Your task to perform on an android device: Add "dell xps" to the cart on ebay.com, then select checkout. Image 0: 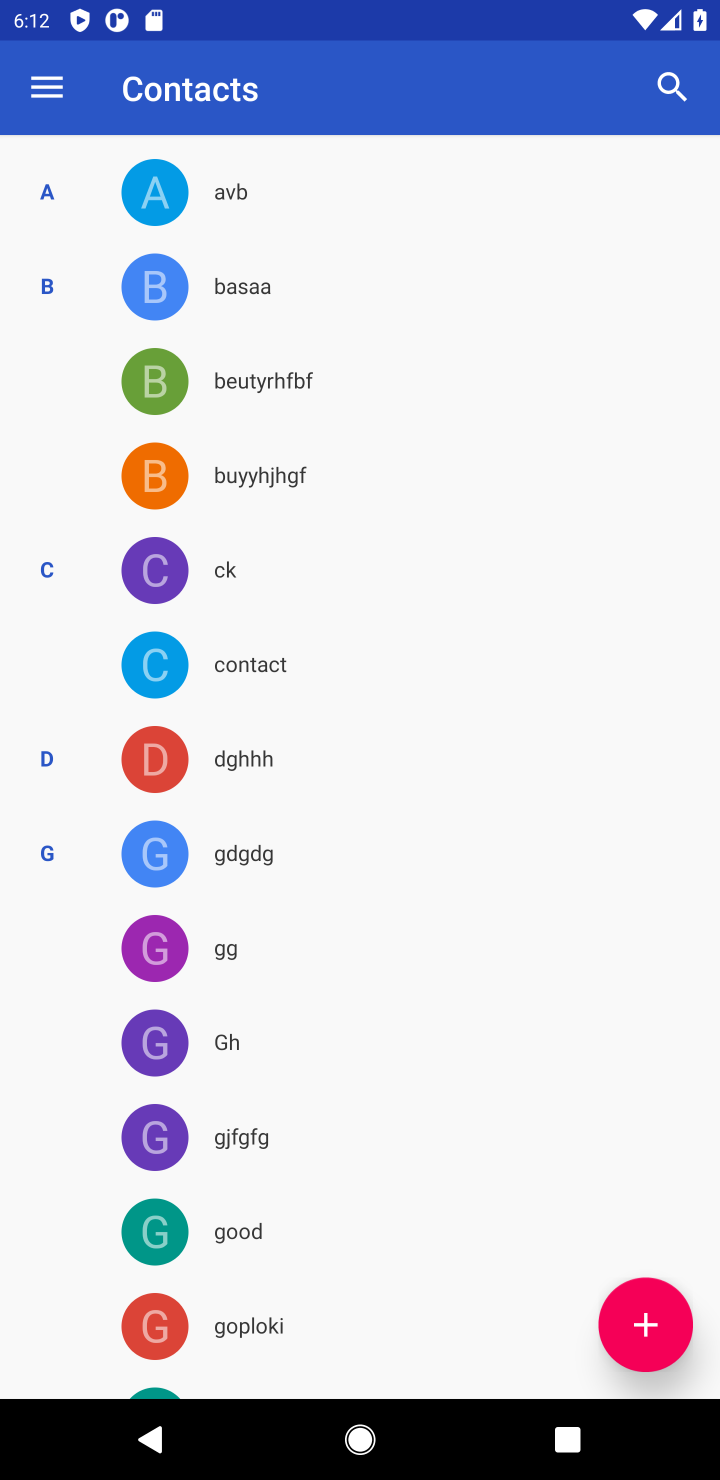
Step 0: press home button
Your task to perform on an android device: Add "dell xps" to the cart on ebay.com, then select checkout. Image 1: 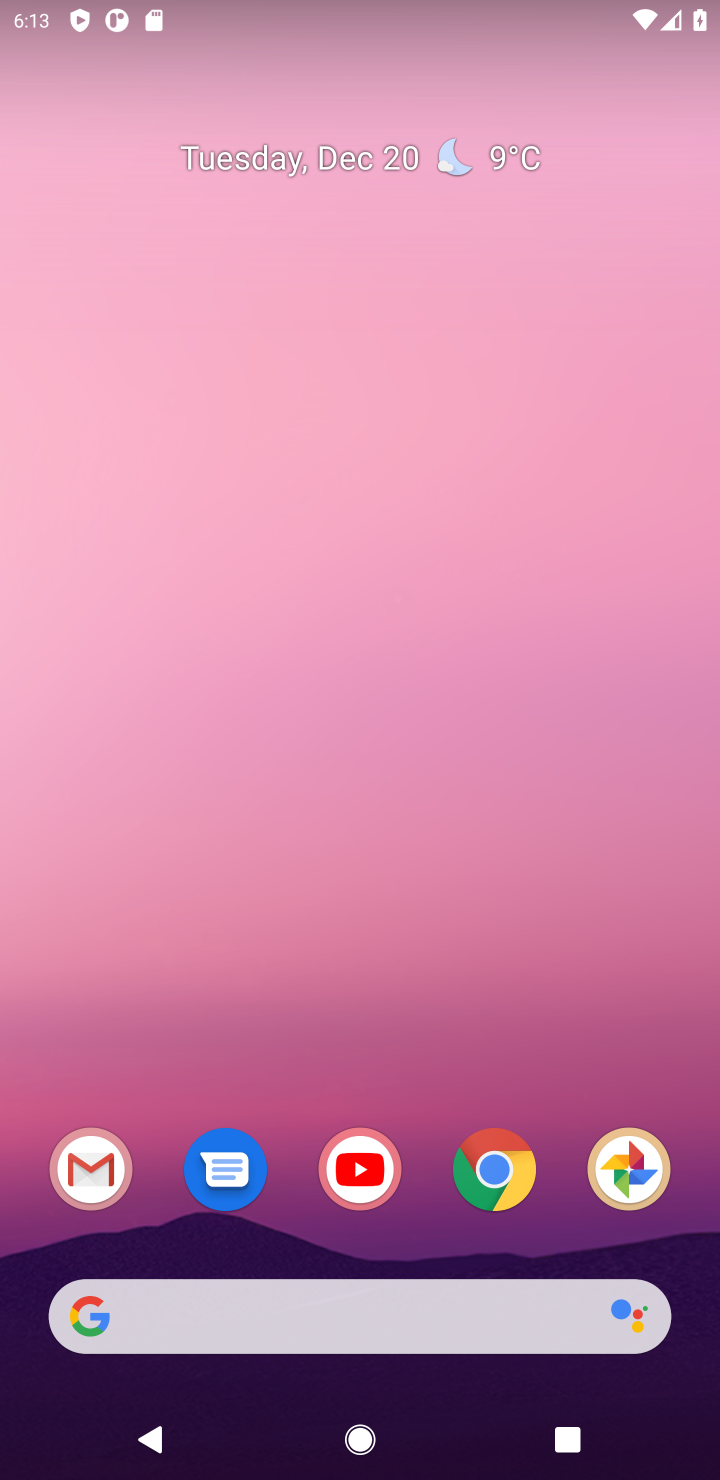
Step 1: click (472, 1194)
Your task to perform on an android device: Add "dell xps" to the cart on ebay.com, then select checkout. Image 2: 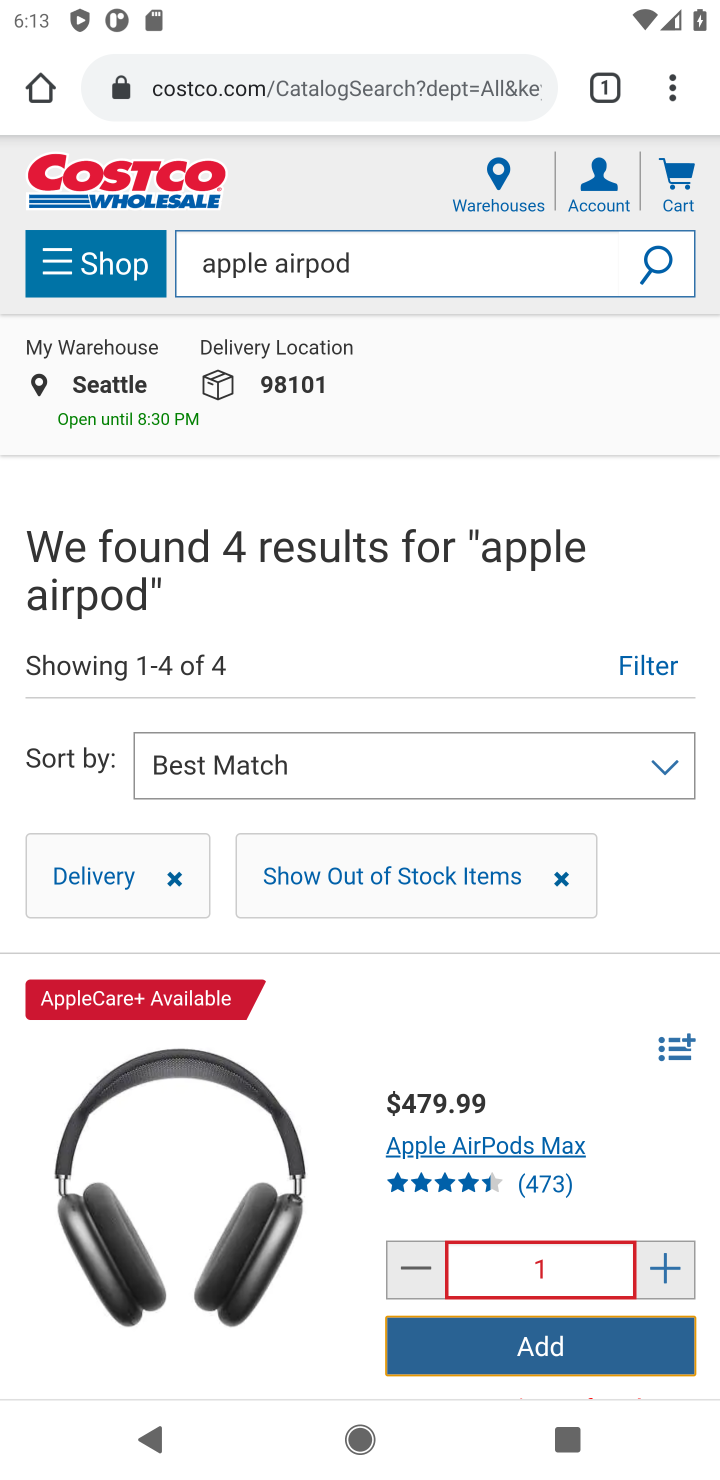
Step 2: click (395, 67)
Your task to perform on an android device: Add "dell xps" to the cart on ebay.com, then select checkout. Image 3: 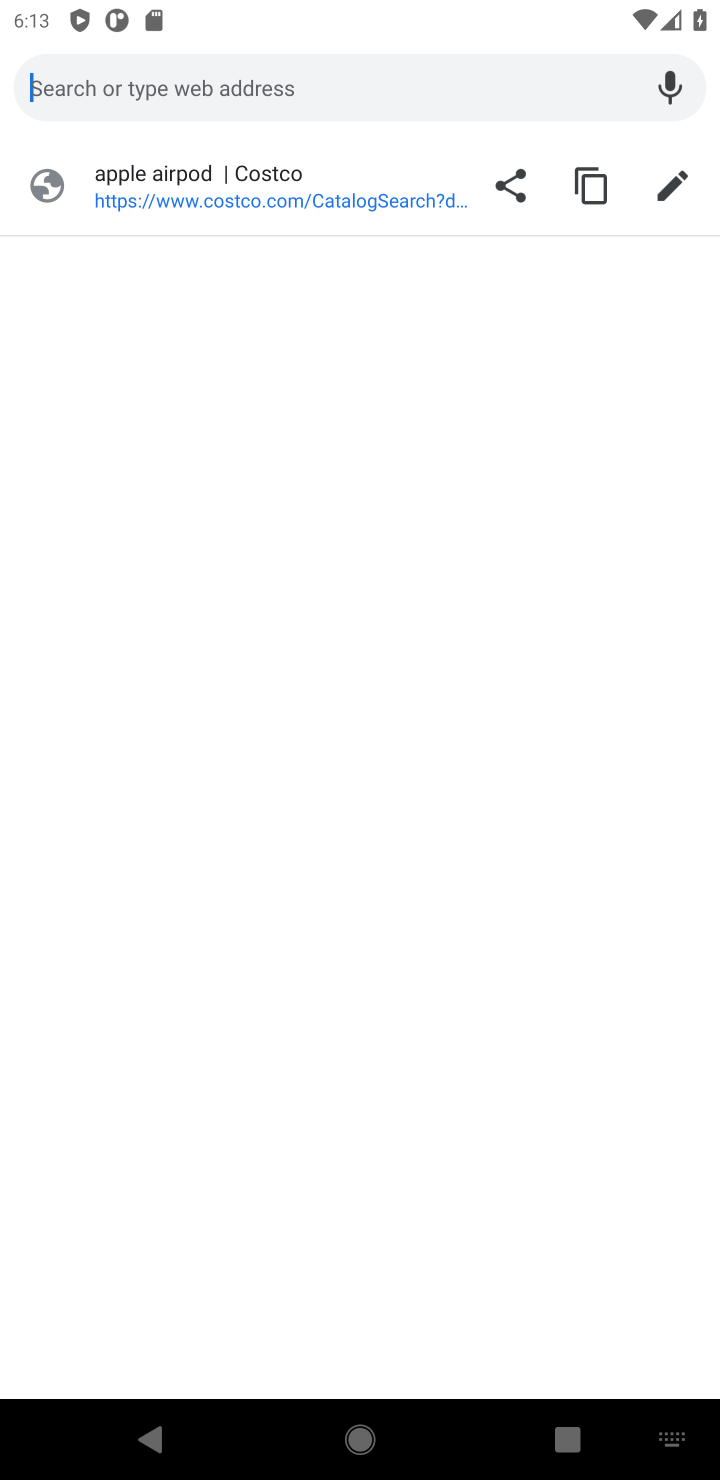
Step 3: type "ebay.com"
Your task to perform on an android device: Add "dell xps" to the cart on ebay.com, then select checkout. Image 4: 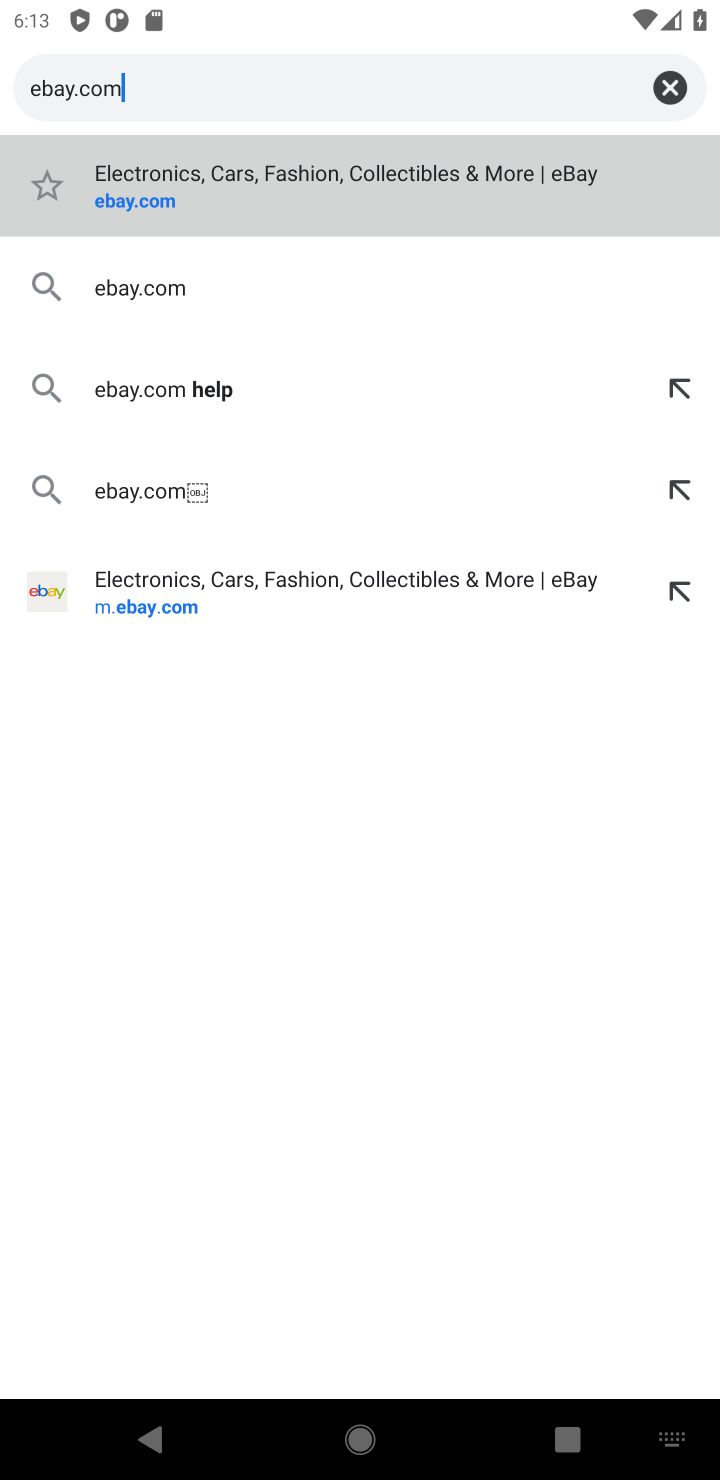
Step 4: click (470, 164)
Your task to perform on an android device: Add "dell xps" to the cart on ebay.com, then select checkout. Image 5: 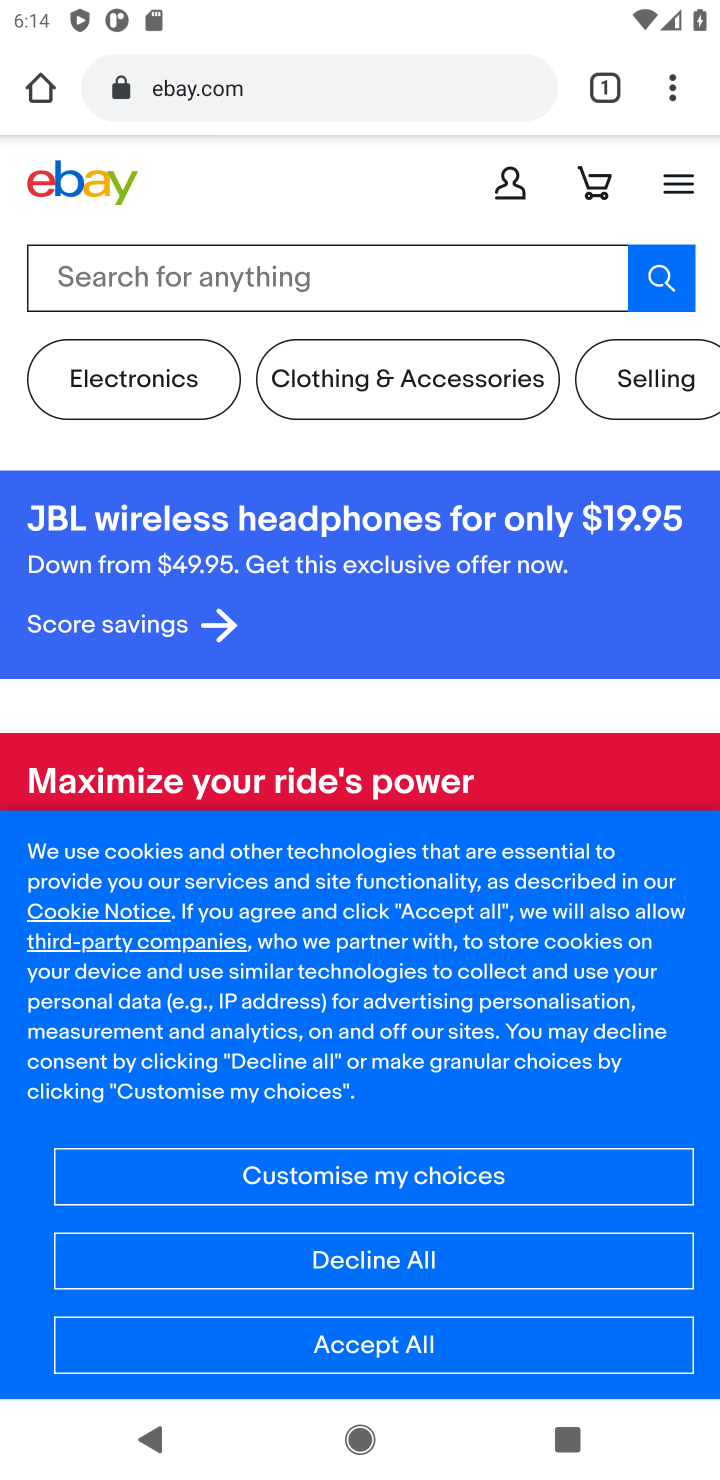
Step 5: click (512, 255)
Your task to perform on an android device: Add "dell xps" to the cart on ebay.com, then select checkout. Image 6: 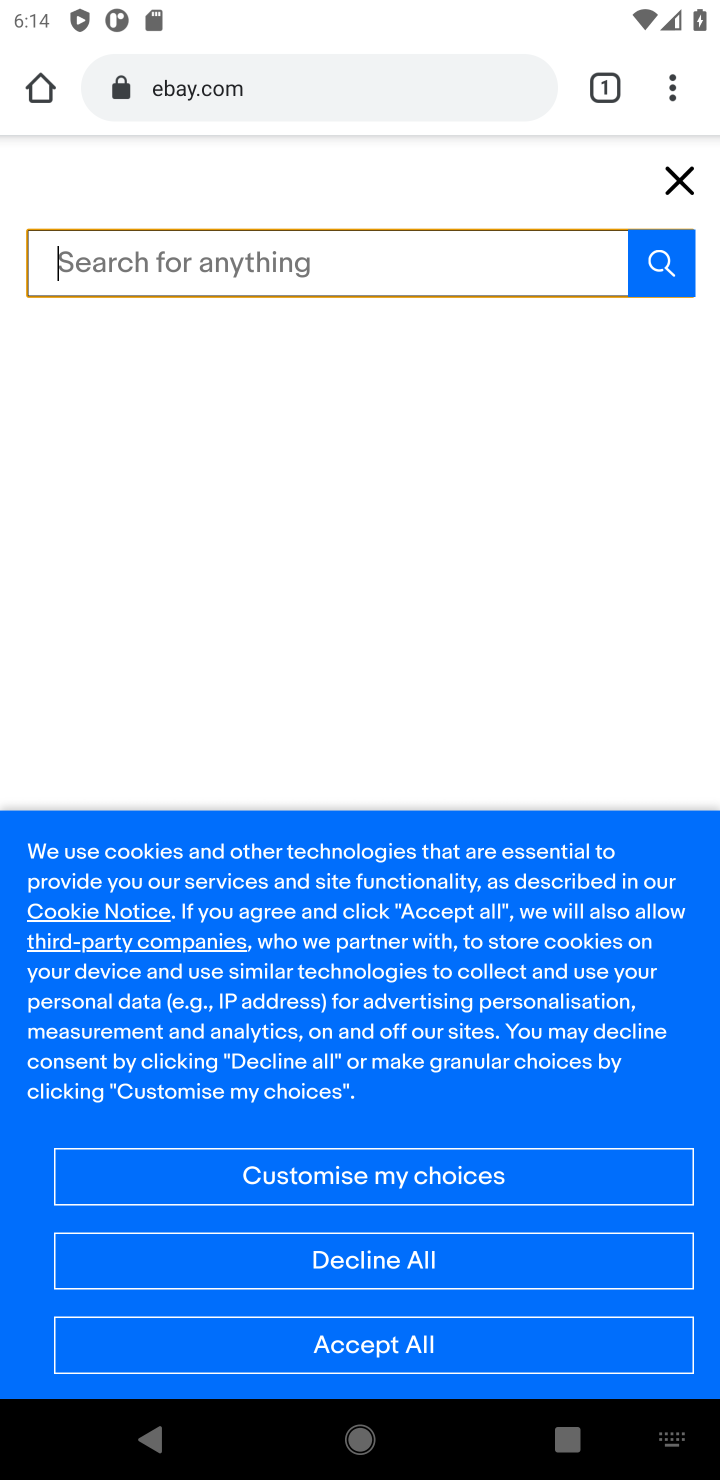
Step 6: type "dell xps"
Your task to perform on an android device: Add "dell xps" to the cart on ebay.com, then select checkout. Image 7: 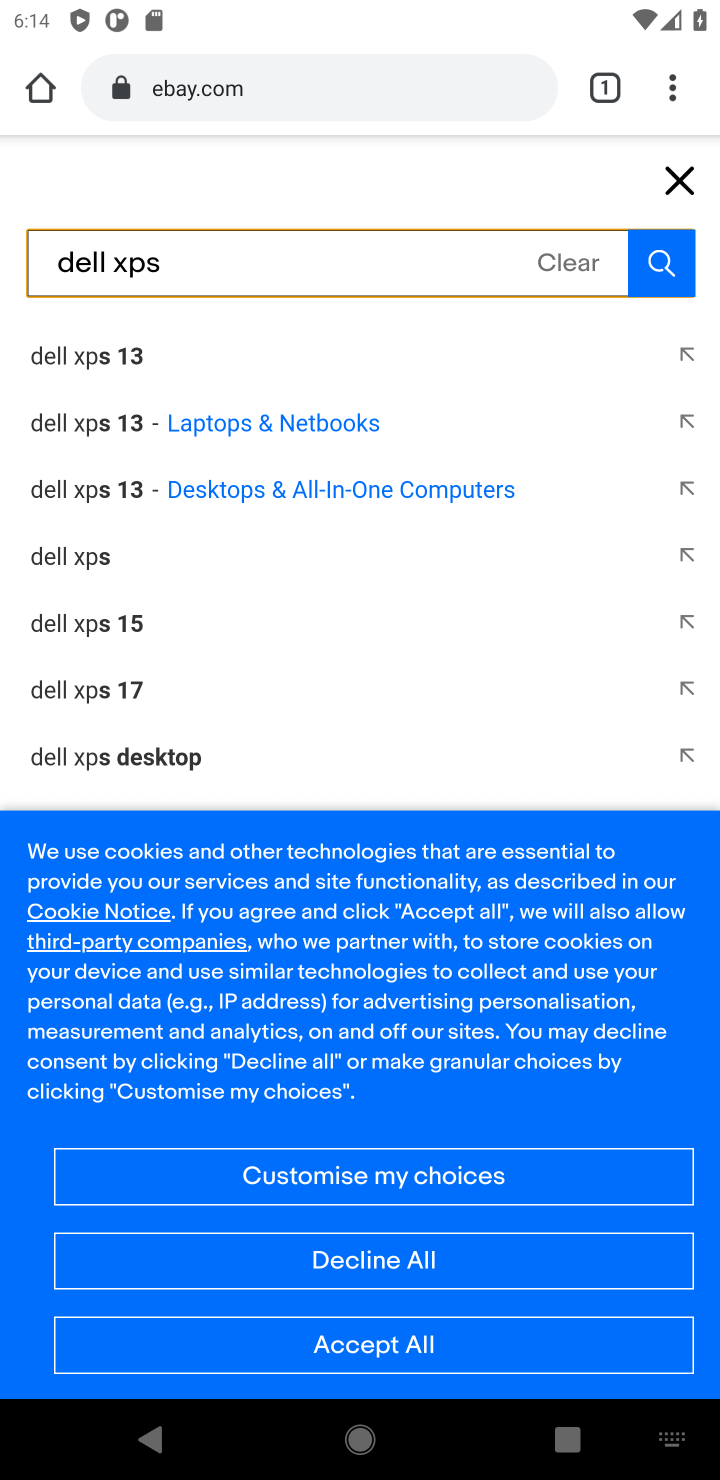
Step 7: click (651, 266)
Your task to perform on an android device: Add "dell xps" to the cart on ebay.com, then select checkout. Image 8: 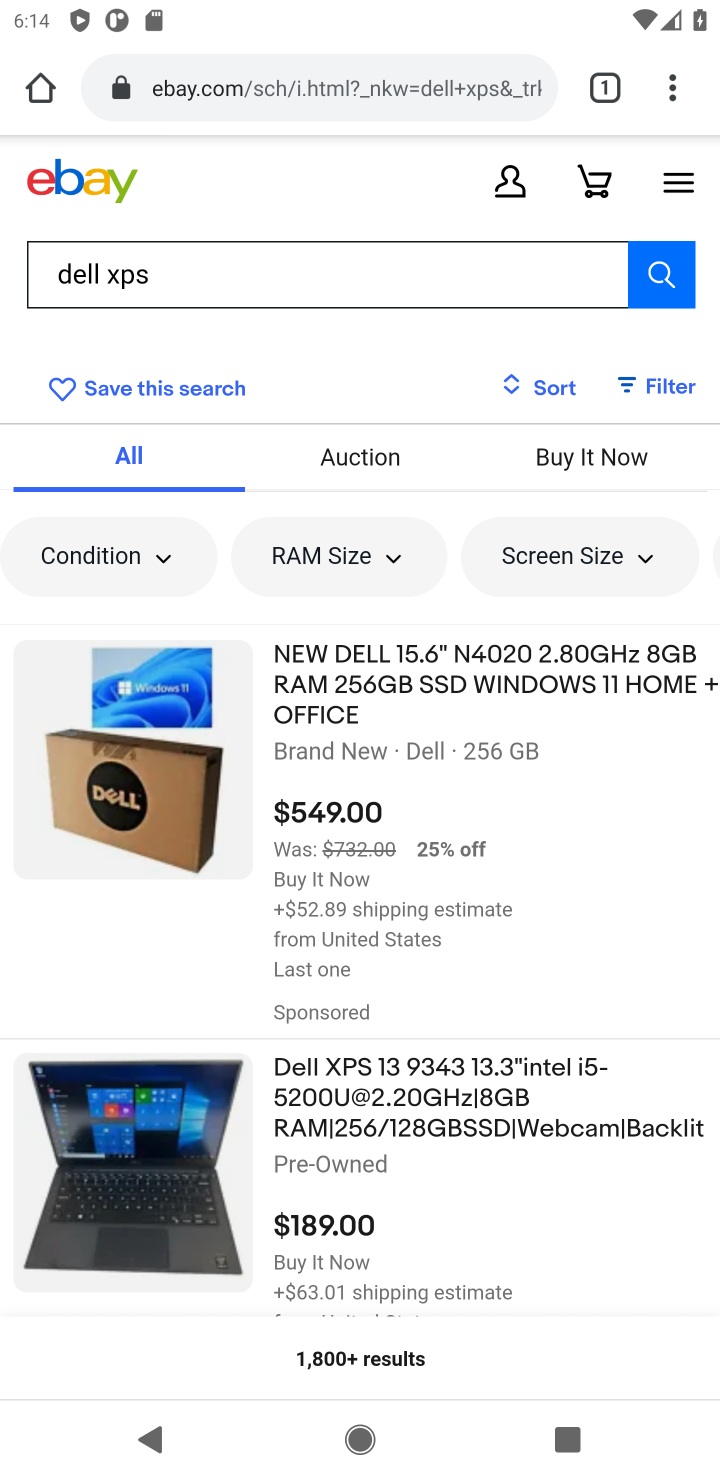
Step 8: click (399, 1133)
Your task to perform on an android device: Add "dell xps" to the cart on ebay.com, then select checkout. Image 9: 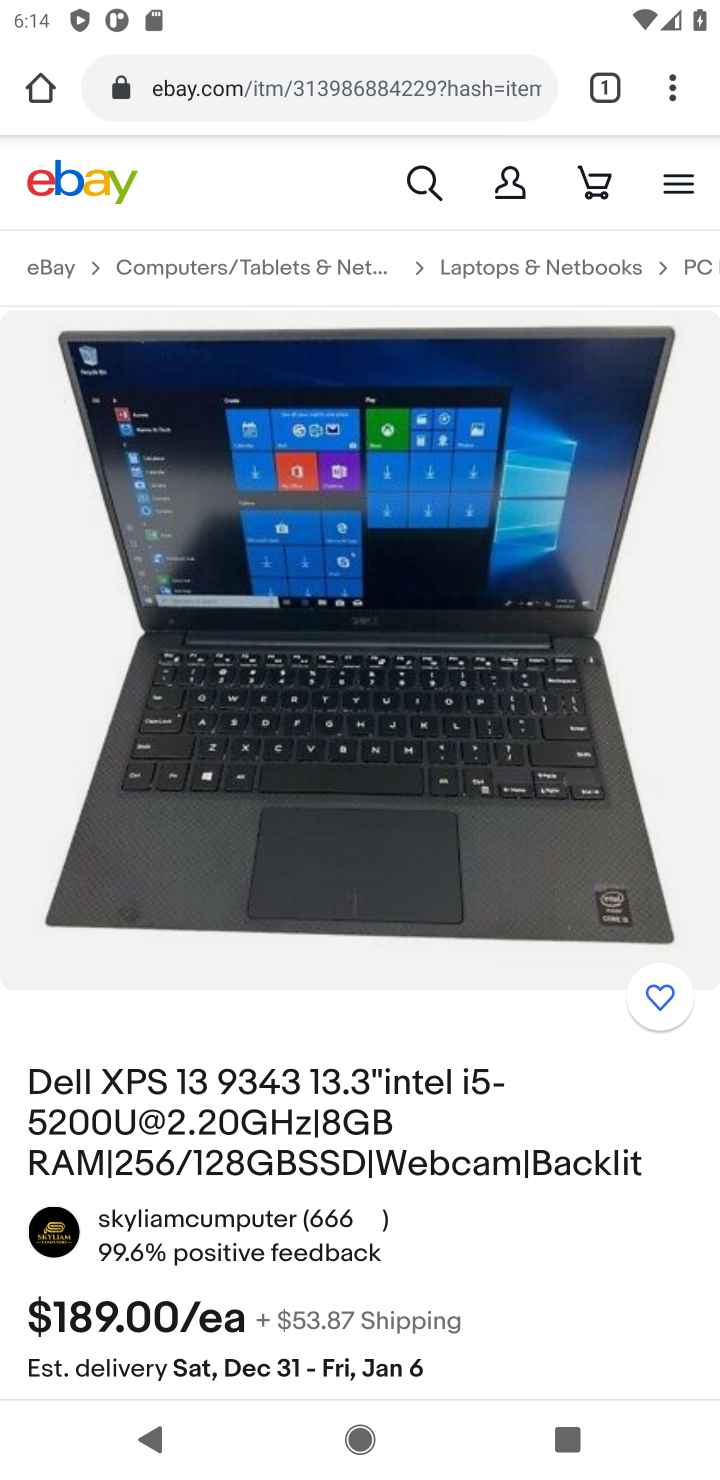
Step 9: drag from (399, 1133) to (243, 350)
Your task to perform on an android device: Add "dell xps" to the cart on ebay.com, then select checkout. Image 10: 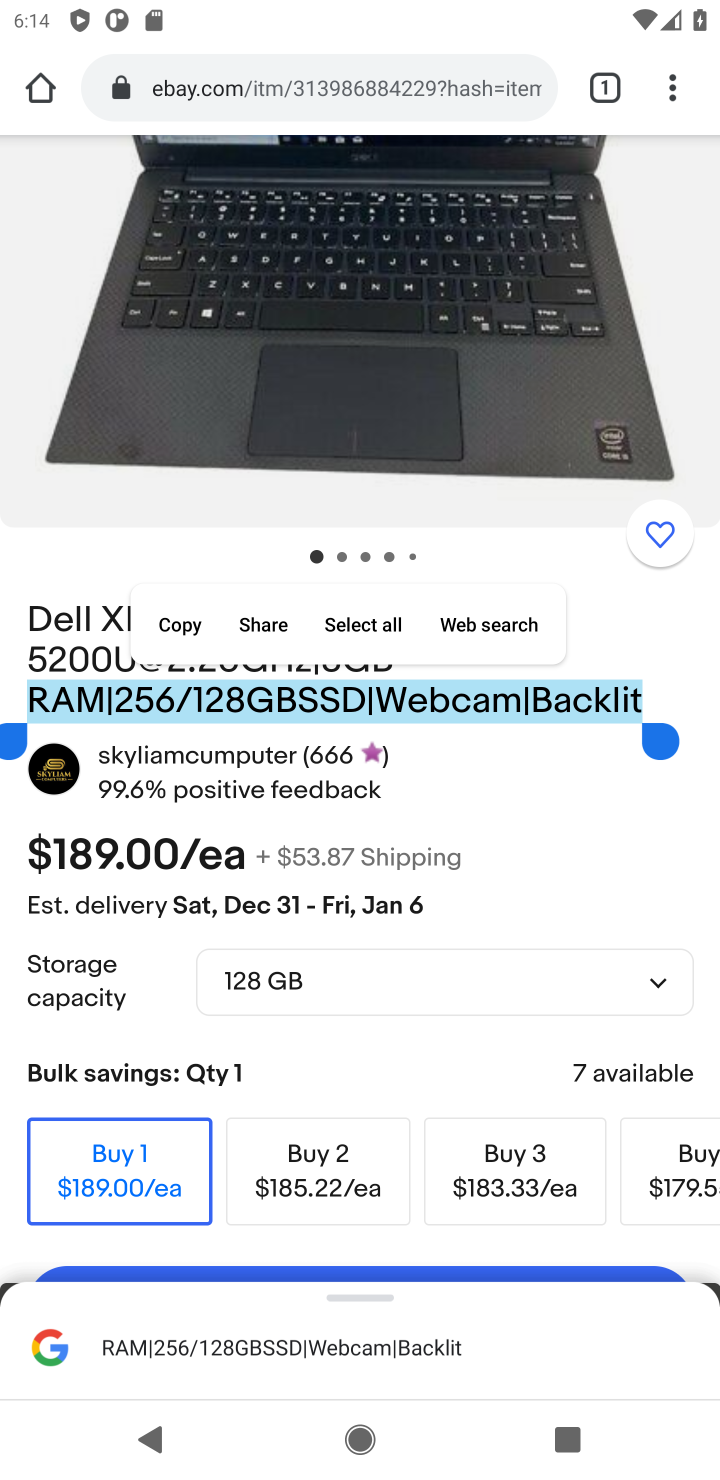
Step 10: click (434, 990)
Your task to perform on an android device: Add "dell xps" to the cart on ebay.com, then select checkout. Image 11: 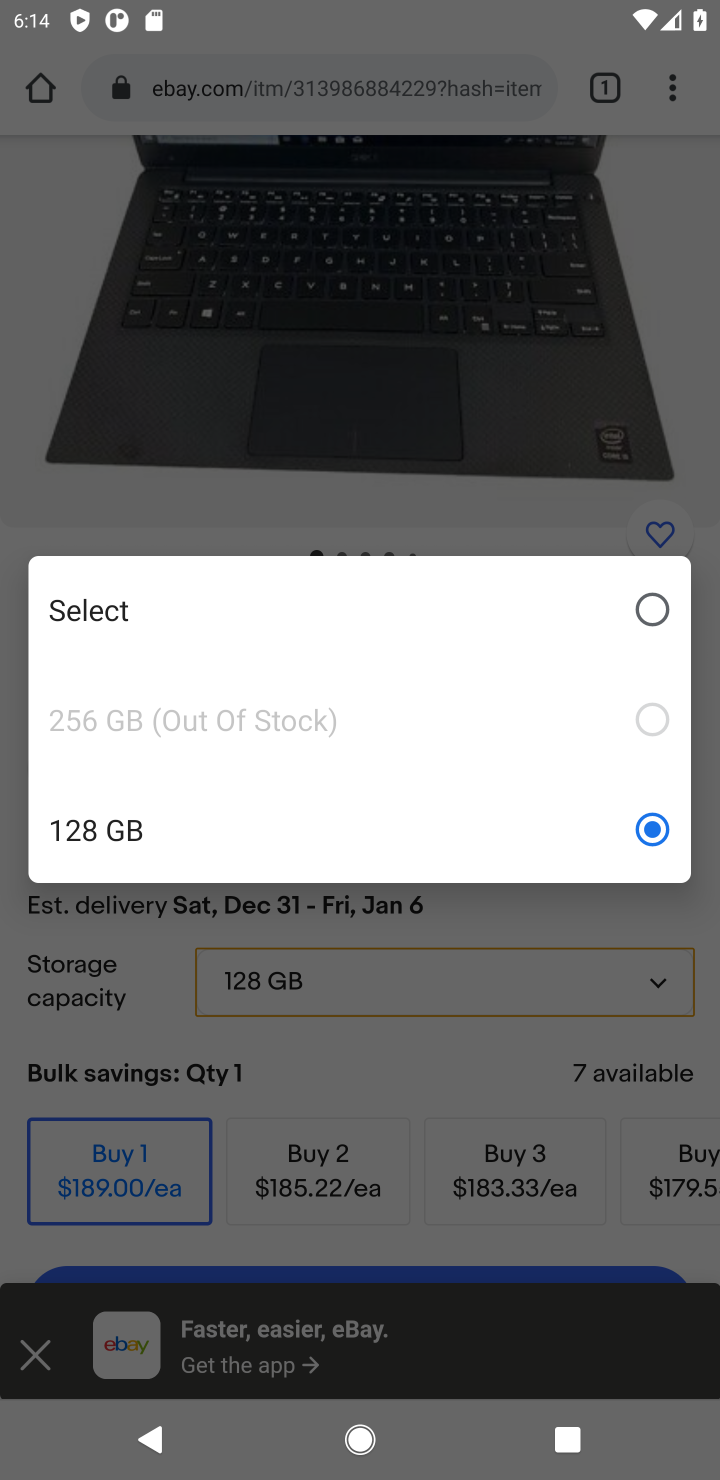
Step 11: click (457, 1047)
Your task to perform on an android device: Add "dell xps" to the cart on ebay.com, then select checkout. Image 12: 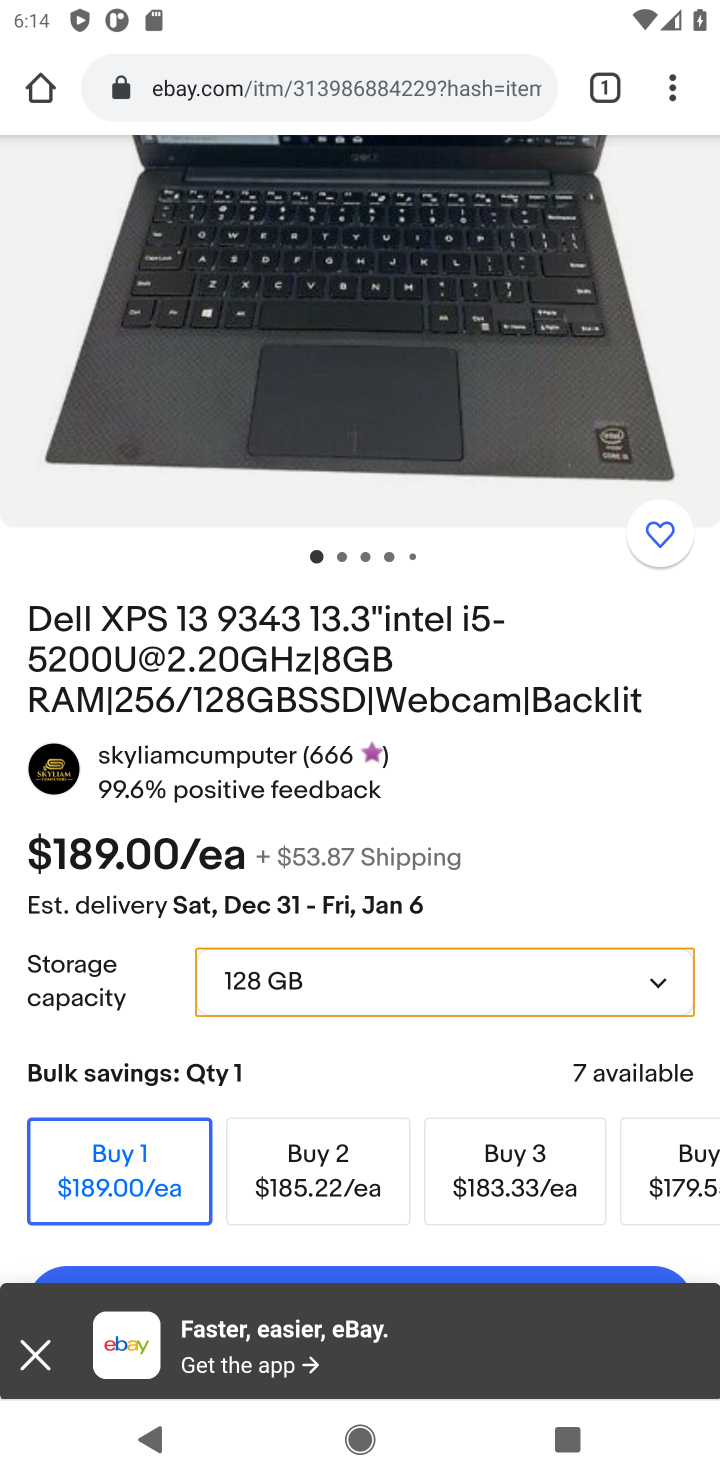
Step 12: drag from (457, 1047) to (434, 464)
Your task to perform on an android device: Add "dell xps" to the cart on ebay.com, then select checkout. Image 13: 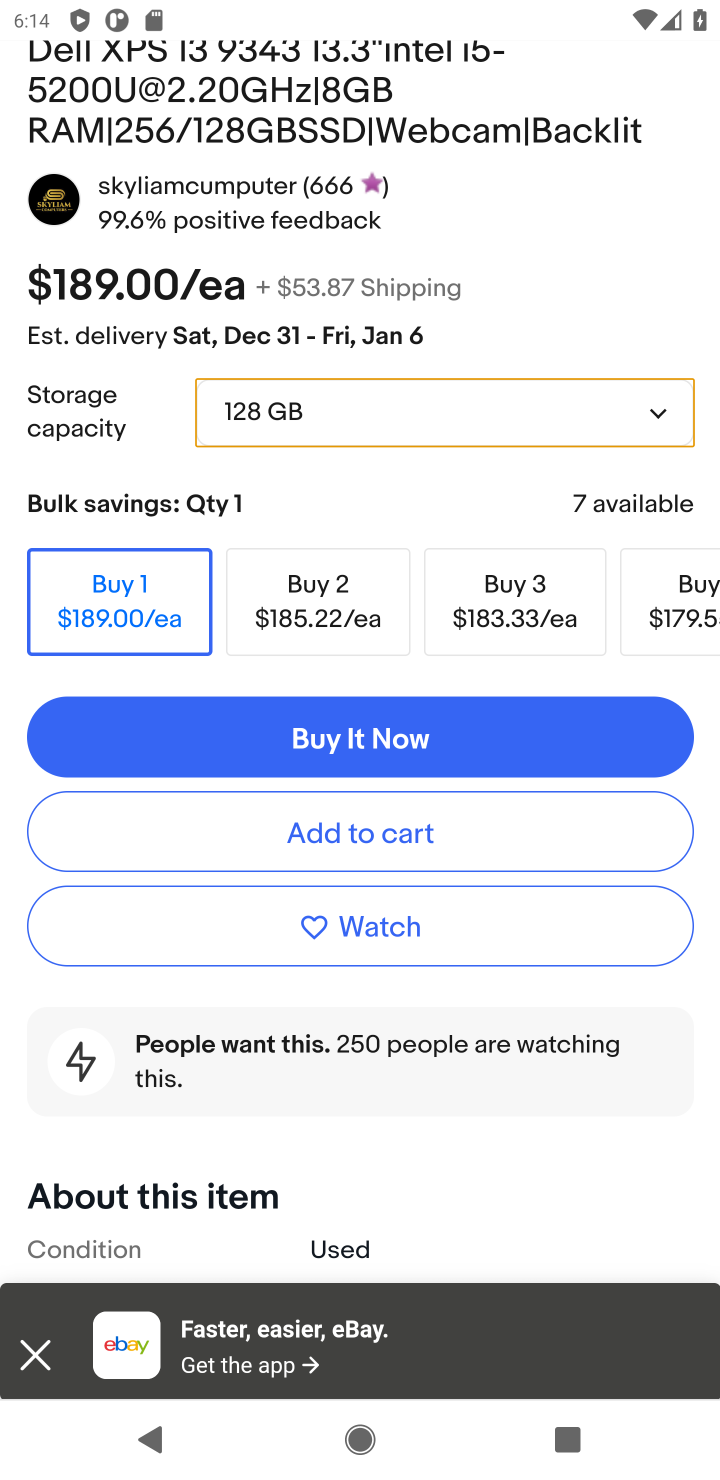
Step 13: click (462, 819)
Your task to perform on an android device: Add "dell xps" to the cart on ebay.com, then select checkout. Image 14: 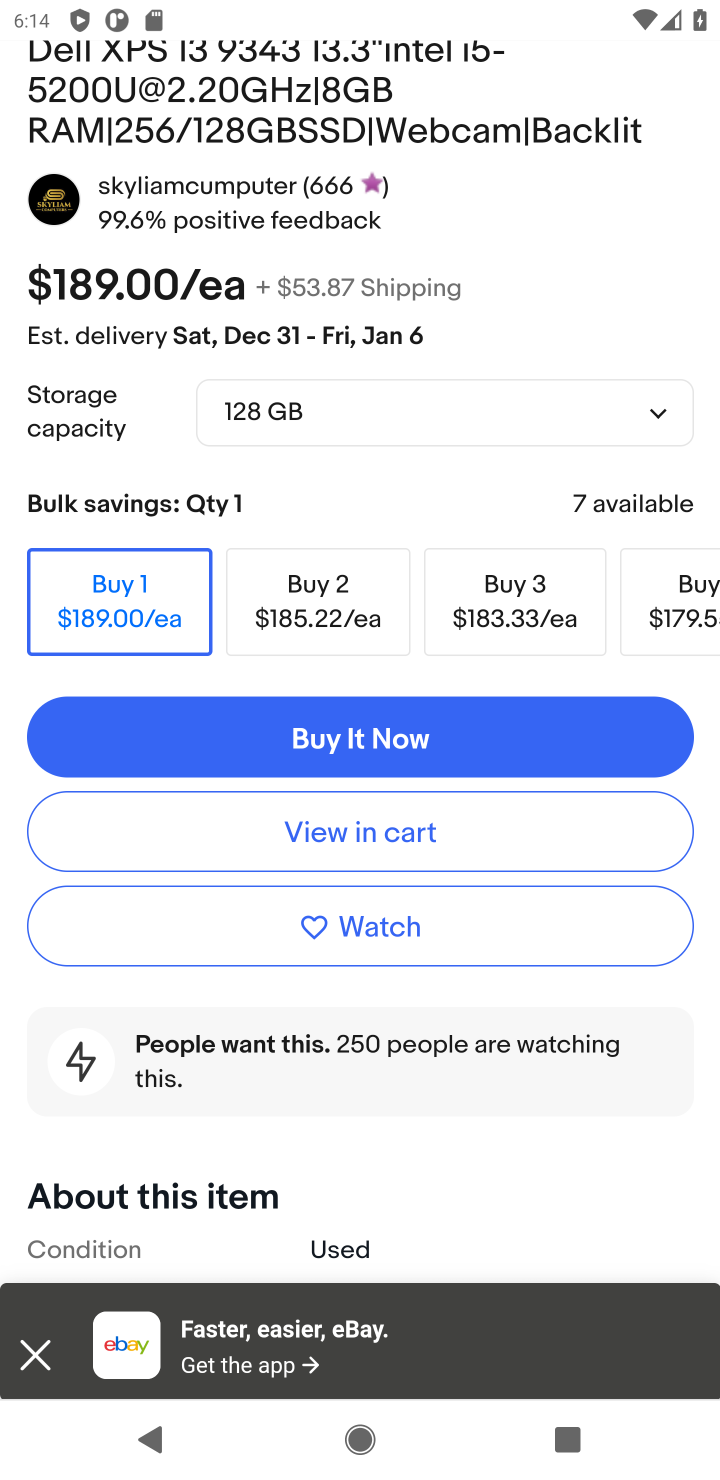
Step 14: task complete